Your task to perform on an android device: turn off javascript in the chrome app Image 0: 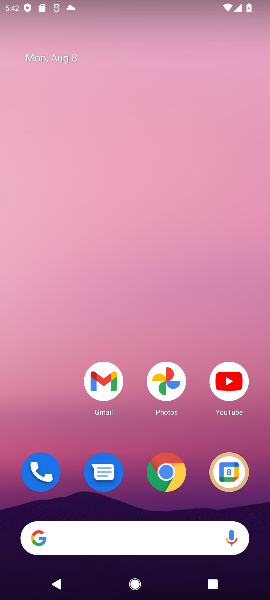
Step 0: press home button
Your task to perform on an android device: turn off javascript in the chrome app Image 1: 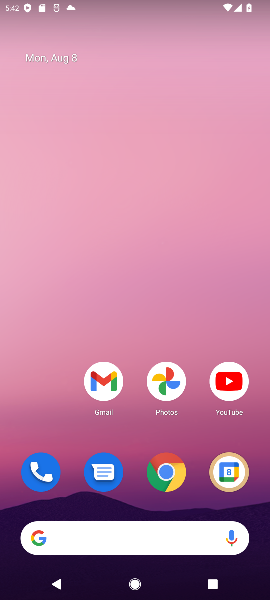
Step 1: click (169, 477)
Your task to perform on an android device: turn off javascript in the chrome app Image 2: 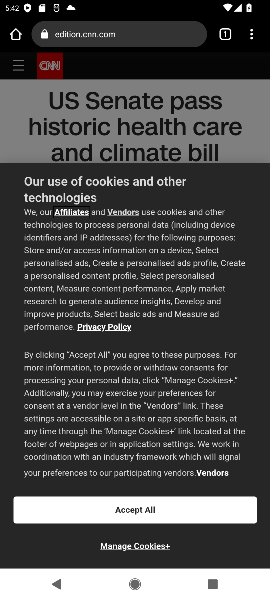
Step 2: drag from (246, 32) to (154, 480)
Your task to perform on an android device: turn off javascript in the chrome app Image 3: 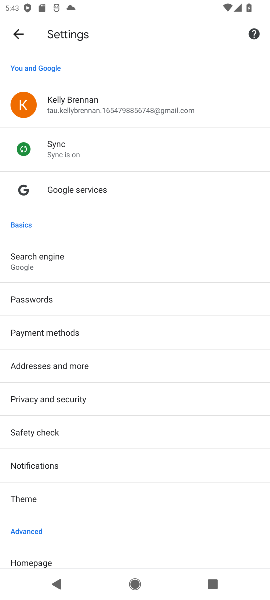
Step 3: drag from (154, 508) to (178, 185)
Your task to perform on an android device: turn off javascript in the chrome app Image 4: 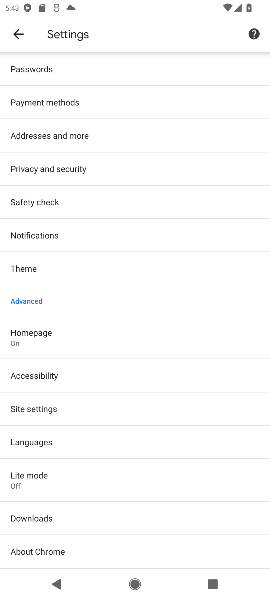
Step 4: click (34, 403)
Your task to perform on an android device: turn off javascript in the chrome app Image 5: 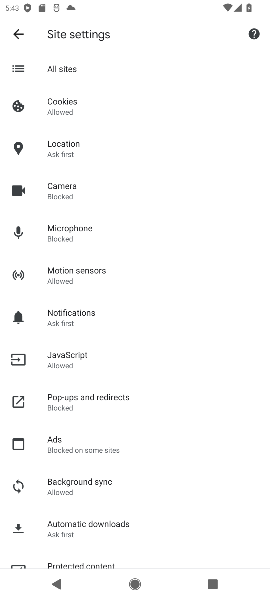
Step 5: click (50, 355)
Your task to perform on an android device: turn off javascript in the chrome app Image 6: 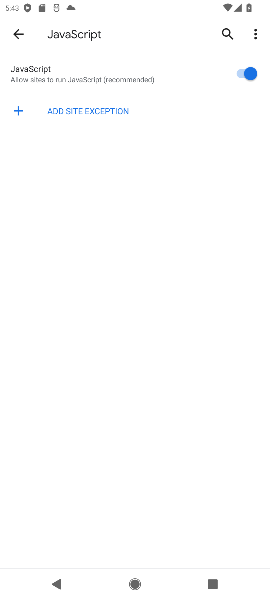
Step 6: click (250, 71)
Your task to perform on an android device: turn off javascript in the chrome app Image 7: 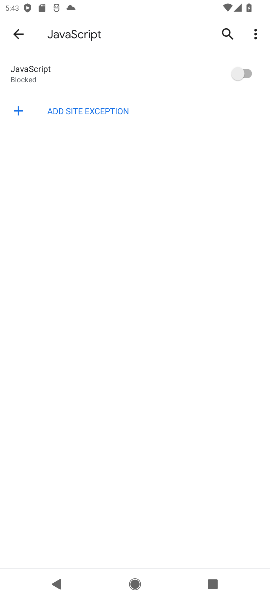
Step 7: task complete